Your task to perform on an android device: Open Yahoo.com Image 0: 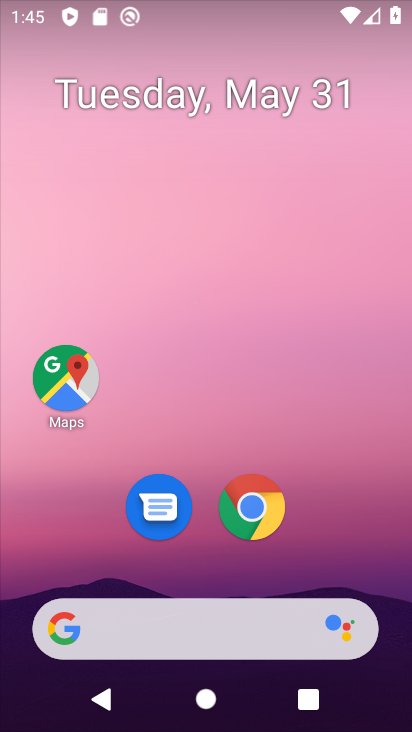
Step 0: click (253, 501)
Your task to perform on an android device: Open Yahoo.com Image 1: 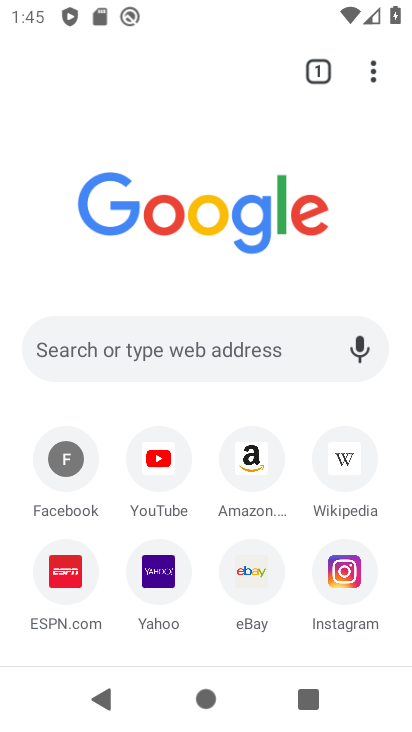
Step 1: click (154, 575)
Your task to perform on an android device: Open Yahoo.com Image 2: 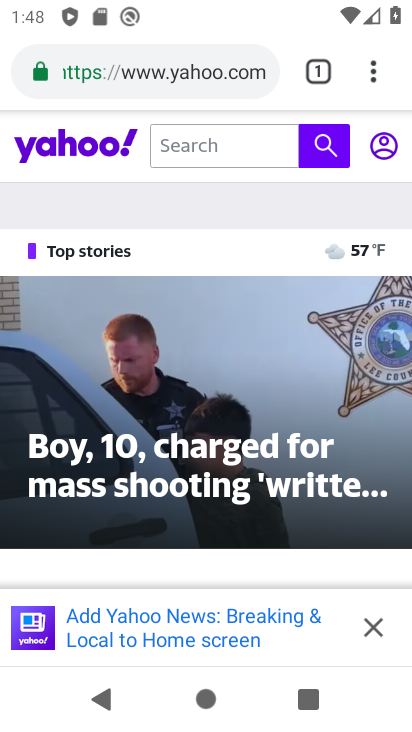
Step 2: task complete